Your task to perform on an android device: check storage Image 0: 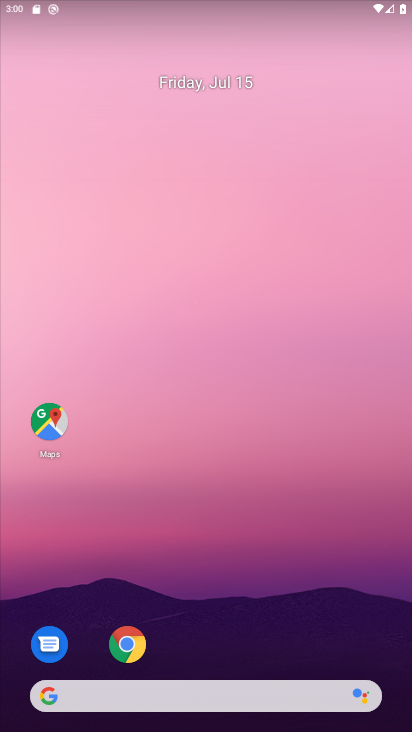
Step 0: drag from (188, 483) to (135, 131)
Your task to perform on an android device: check storage Image 1: 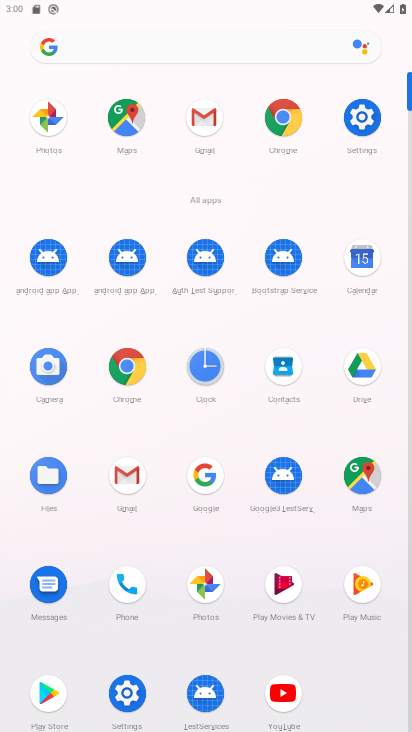
Step 1: click (360, 131)
Your task to perform on an android device: check storage Image 2: 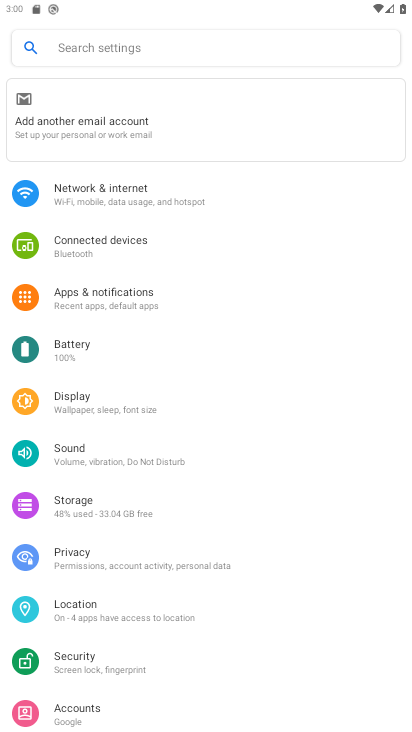
Step 2: click (152, 521)
Your task to perform on an android device: check storage Image 3: 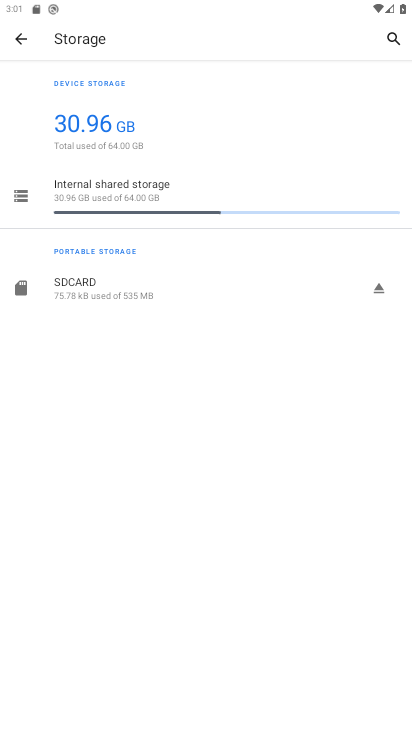
Step 3: task complete